Your task to perform on an android device: Show me recent news Image 0: 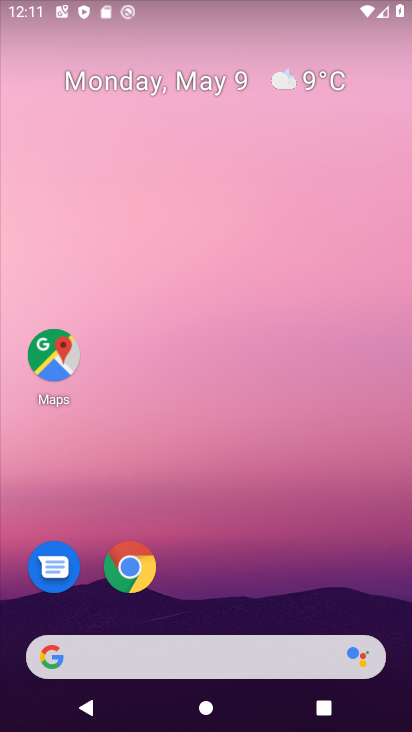
Step 0: drag from (266, 688) to (183, 292)
Your task to perform on an android device: Show me recent news Image 1: 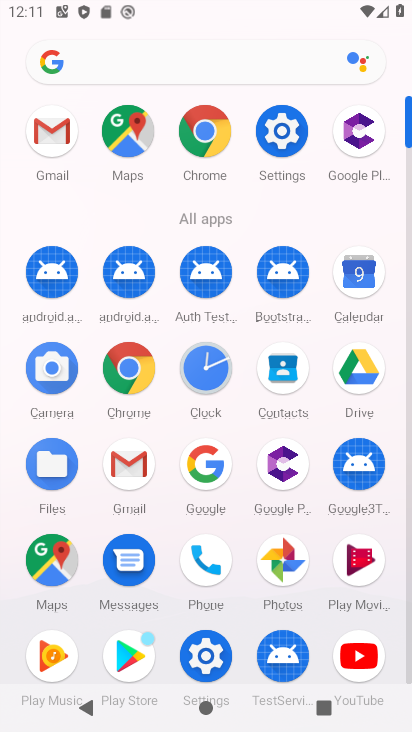
Step 1: click (165, 83)
Your task to perform on an android device: Show me recent news Image 2: 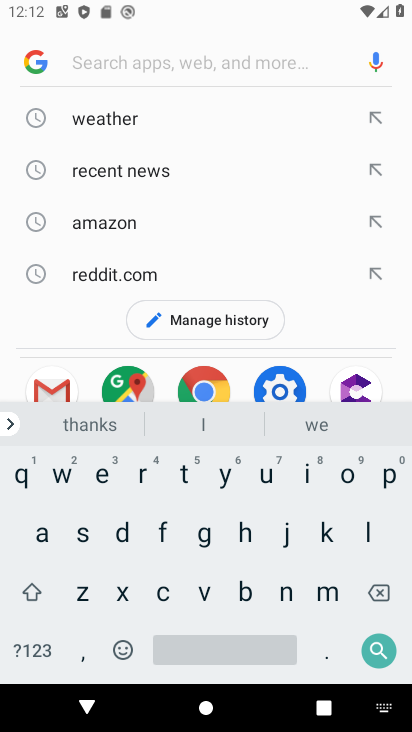
Step 2: click (158, 176)
Your task to perform on an android device: Show me recent news Image 3: 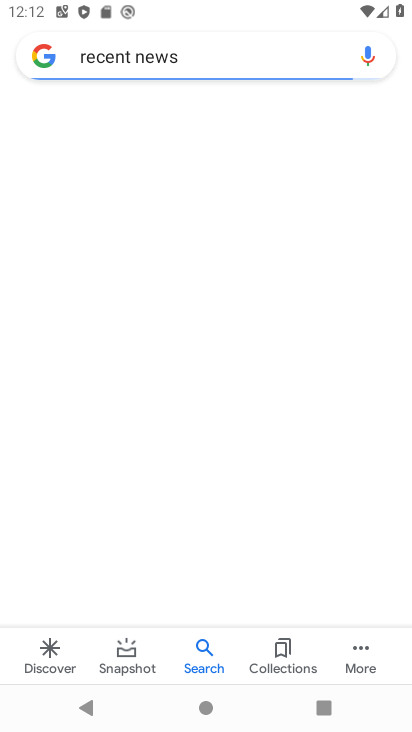
Step 3: task complete